Your task to perform on an android device: Show me the alarms in the clock app Image 0: 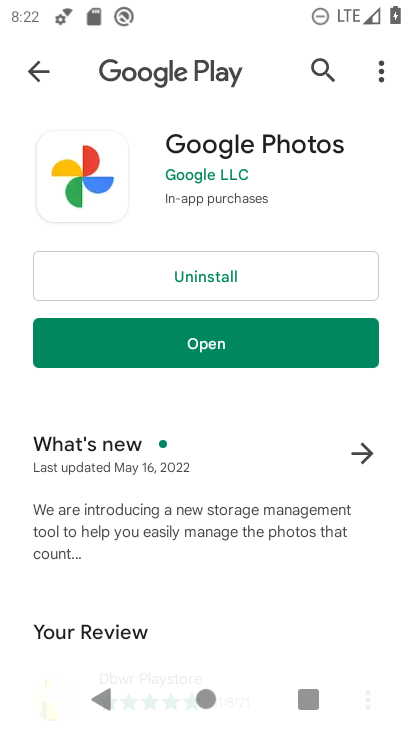
Step 0: click (35, 61)
Your task to perform on an android device: Show me the alarms in the clock app Image 1: 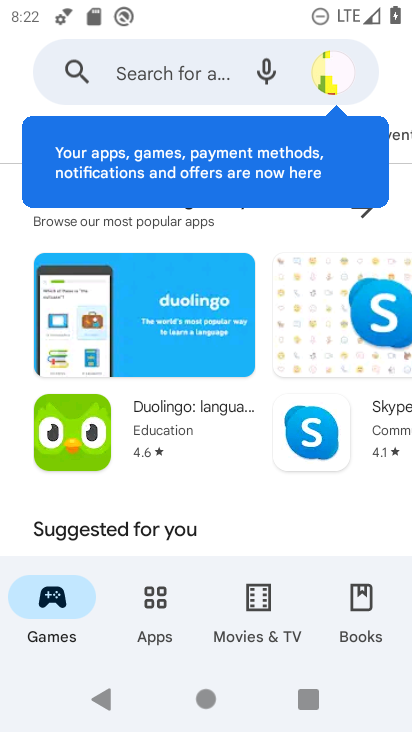
Step 1: press home button
Your task to perform on an android device: Show me the alarms in the clock app Image 2: 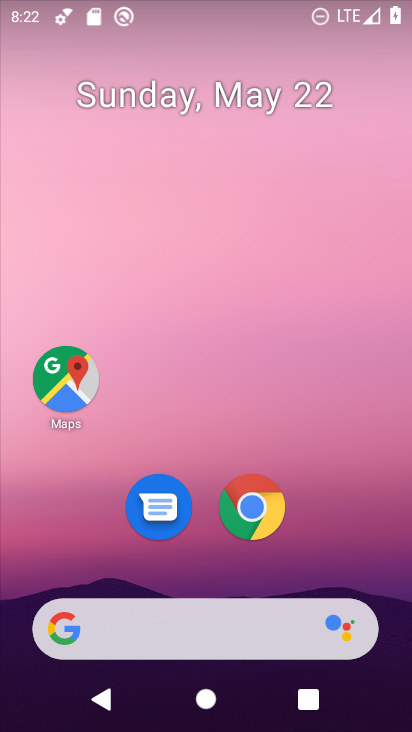
Step 2: drag from (173, 664) to (222, 108)
Your task to perform on an android device: Show me the alarms in the clock app Image 3: 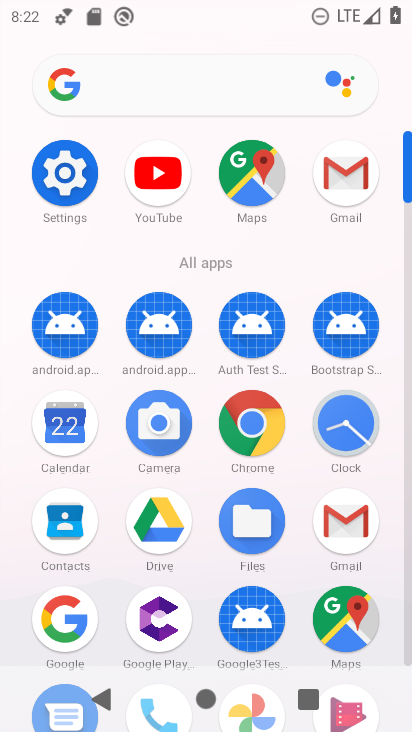
Step 3: click (364, 409)
Your task to perform on an android device: Show me the alarms in the clock app Image 4: 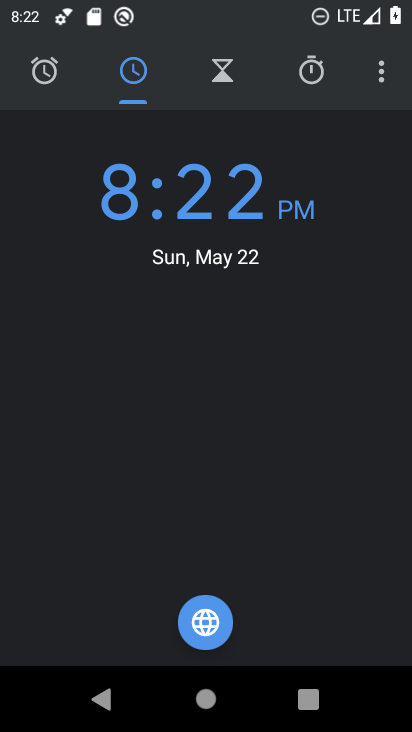
Step 4: click (42, 80)
Your task to perform on an android device: Show me the alarms in the clock app Image 5: 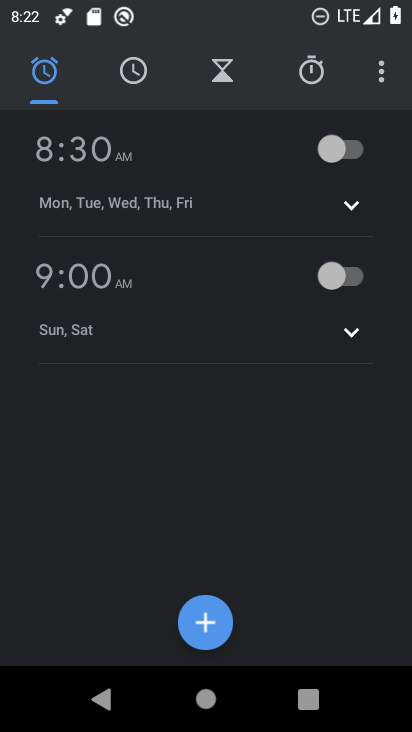
Step 5: task complete